Your task to perform on an android device: Open Android settings Image 0: 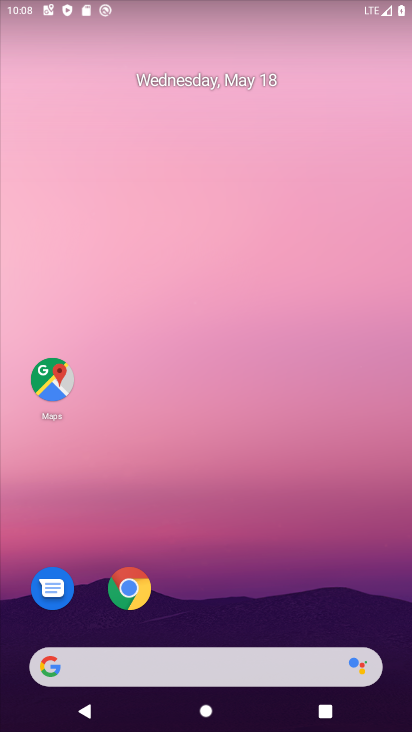
Step 0: drag from (386, 648) to (310, 31)
Your task to perform on an android device: Open Android settings Image 1: 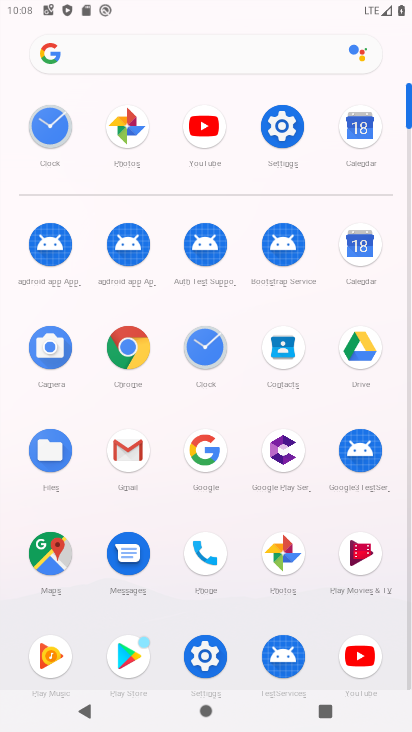
Step 1: click (277, 117)
Your task to perform on an android device: Open Android settings Image 2: 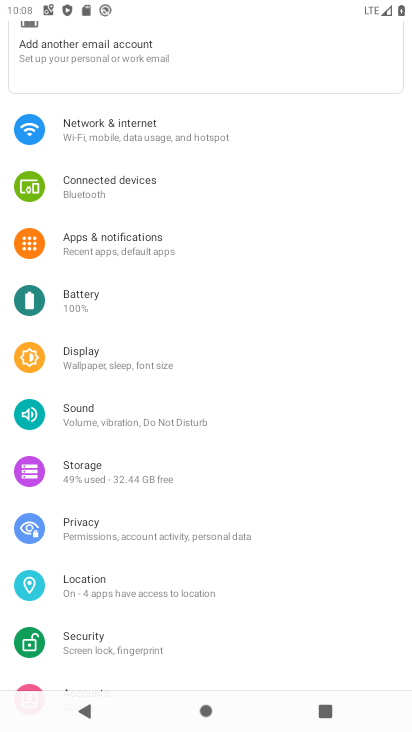
Step 2: task complete